Your task to perform on an android device: Open Reddit.com Image 0: 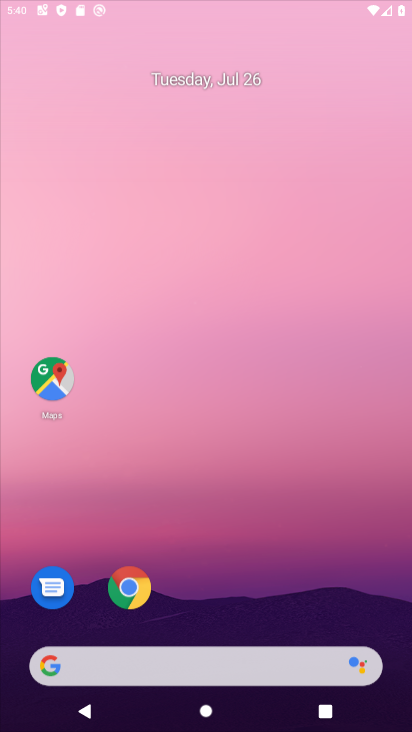
Step 0: click (307, 77)
Your task to perform on an android device: Open Reddit.com Image 1: 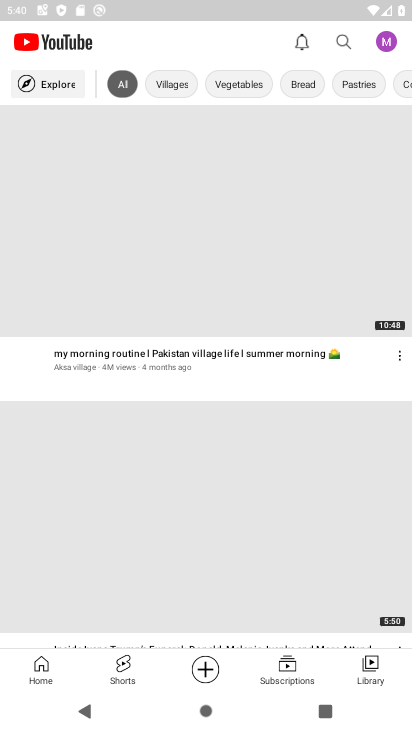
Step 1: press home button
Your task to perform on an android device: Open Reddit.com Image 2: 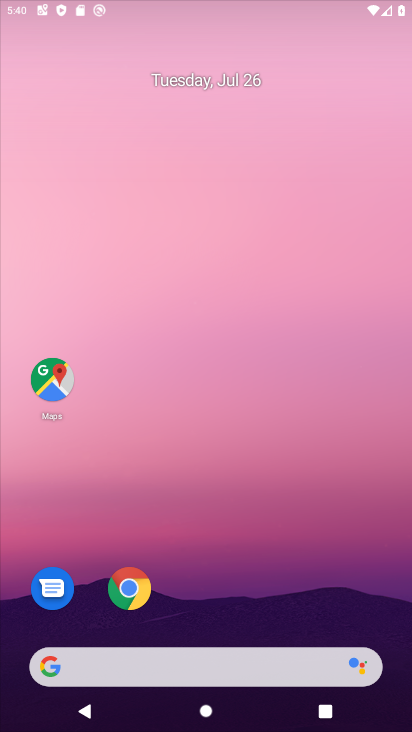
Step 2: drag from (236, 616) to (254, 149)
Your task to perform on an android device: Open Reddit.com Image 3: 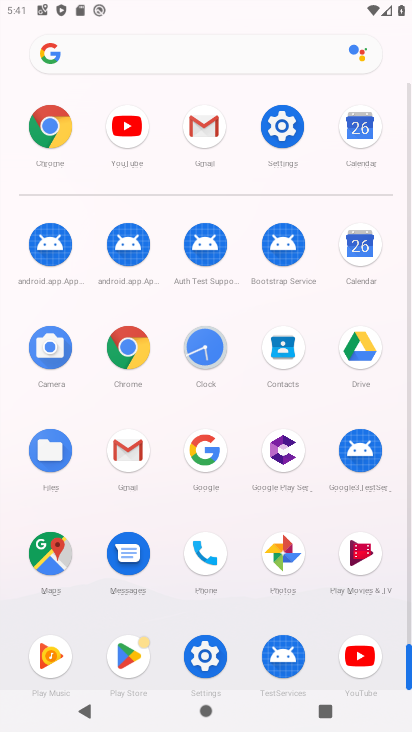
Step 3: click (124, 364)
Your task to perform on an android device: Open Reddit.com Image 4: 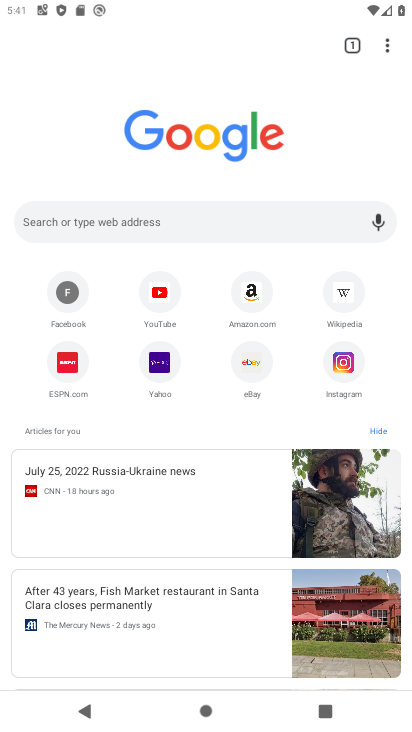
Step 4: click (254, 231)
Your task to perform on an android device: Open Reddit.com Image 5: 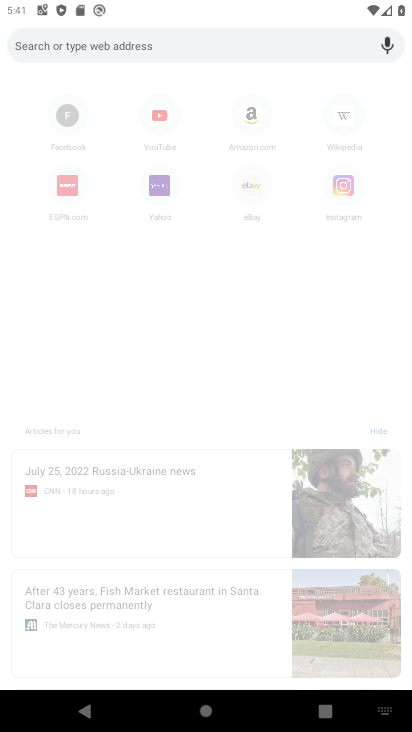
Step 5: type "reddit"
Your task to perform on an android device: Open Reddit.com Image 6: 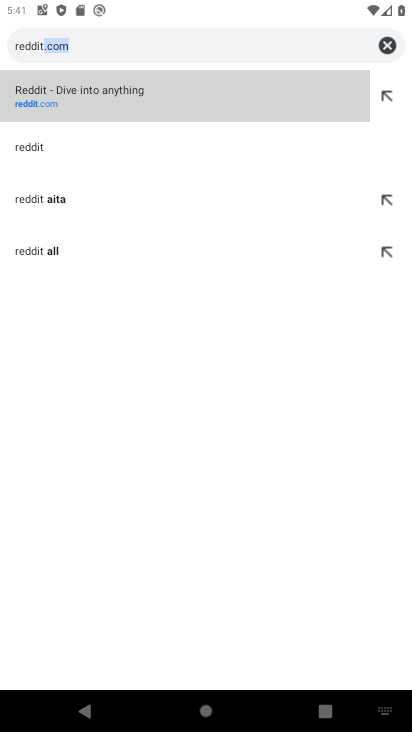
Step 6: click (179, 72)
Your task to perform on an android device: Open Reddit.com Image 7: 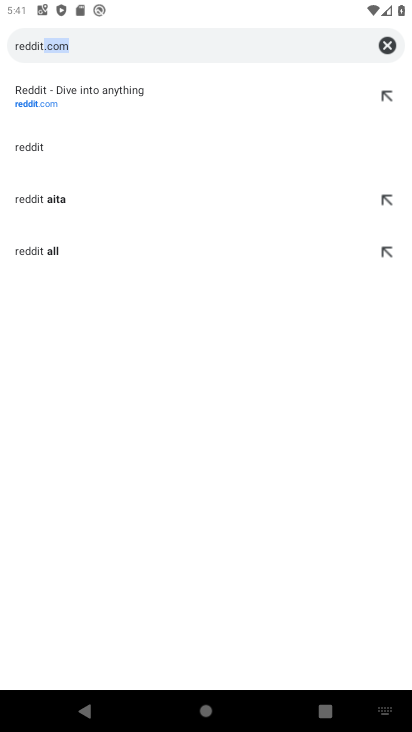
Step 7: click (156, 108)
Your task to perform on an android device: Open Reddit.com Image 8: 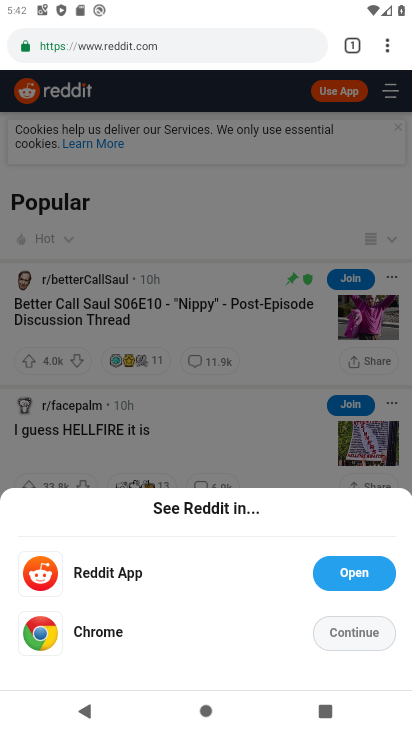
Step 8: task complete